Your task to perform on an android device: open device folders in google photos Image 0: 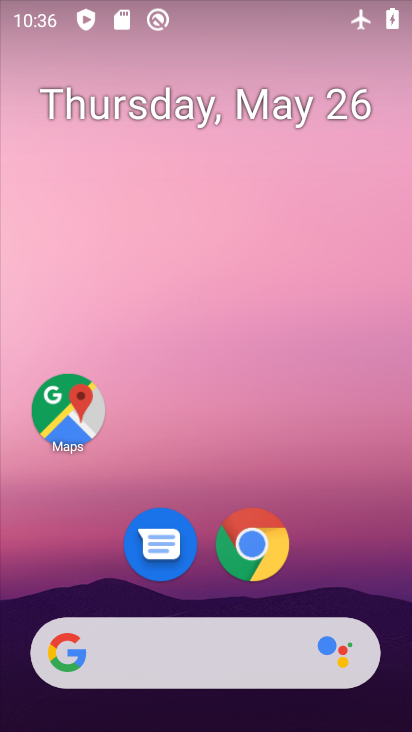
Step 0: drag from (344, 556) to (212, 36)
Your task to perform on an android device: open device folders in google photos Image 1: 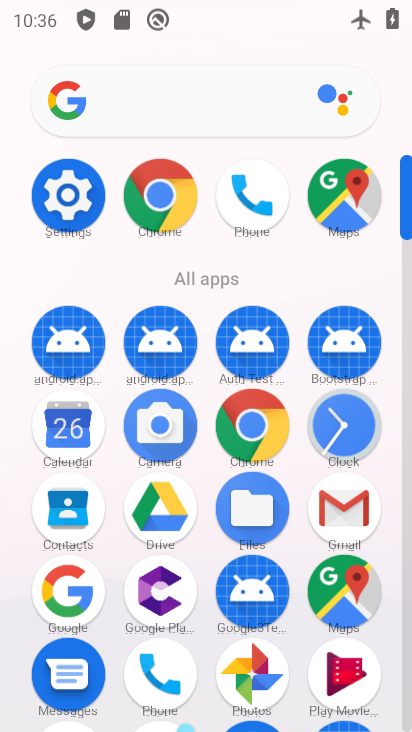
Step 1: drag from (9, 541) to (20, 228)
Your task to perform on an android device: open device folders in google photos Image 2: 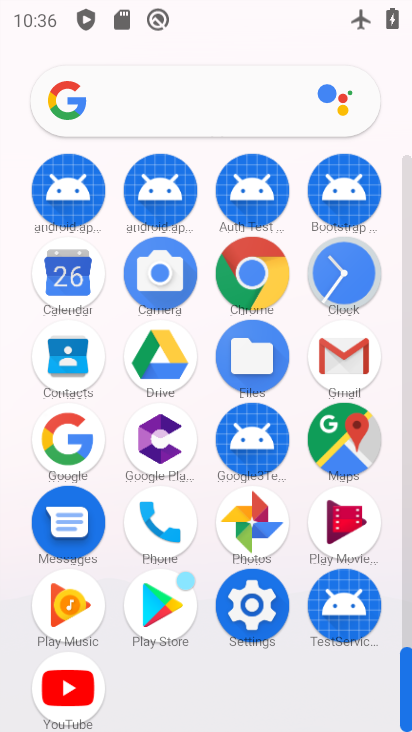
Step 2: click (254, 522)
Your task to perform on an android device: open device folders in google photos Image 3: 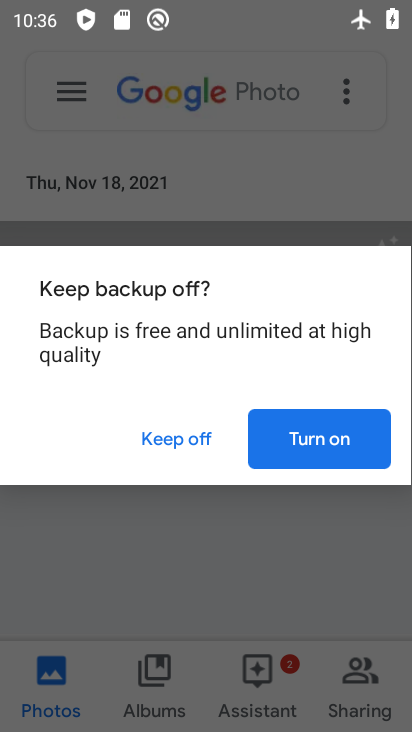
Step 3: click (338, 427)
Your task to perform on an android device: open device folders in google photos Image 4: 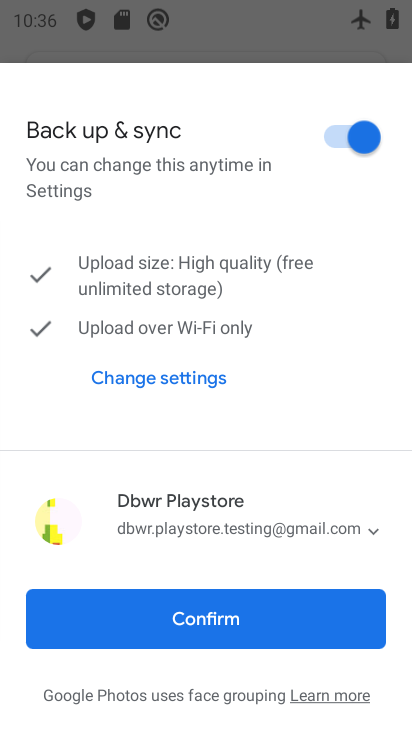
Step 4: click (239, 623)
Your task to perform on an android device: open device folders in google photos Image 5: 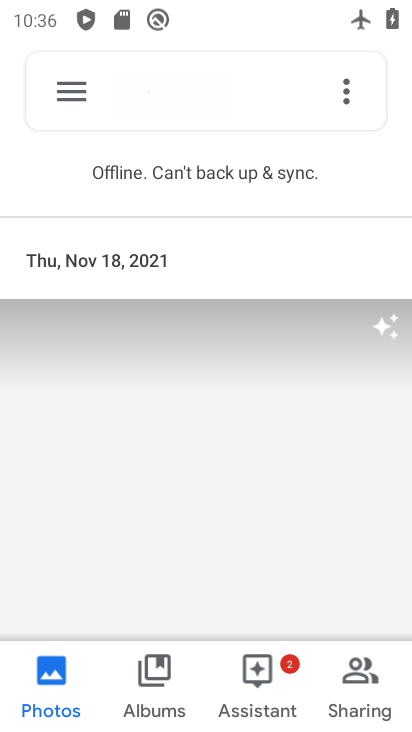
Step 5: click (78, 94)
Your task to perform on an android device: open device folders in google photos Image 6: 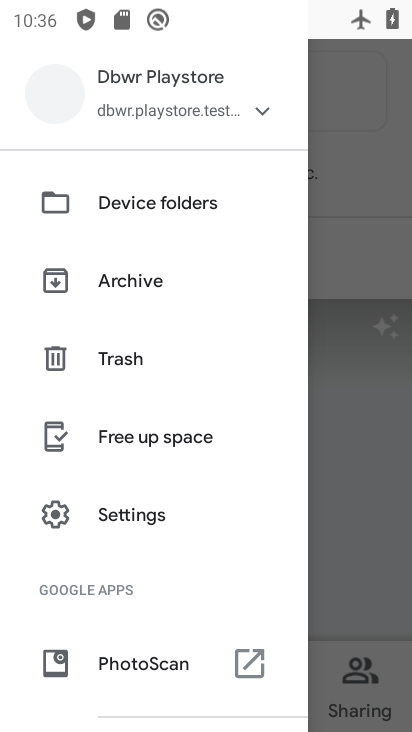
Step 6: click (117, 186)
Your task to perform on an android device: open device folders in google photos Image 7: 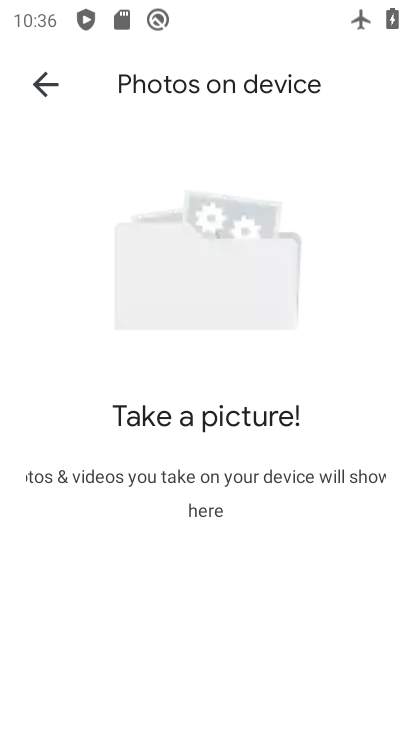
Step 7: task complete